Your task to perform on an android device: open app "Paramount+ | Peak Streaming" (install if not already installed), go to login, and select forgot password Image 0: 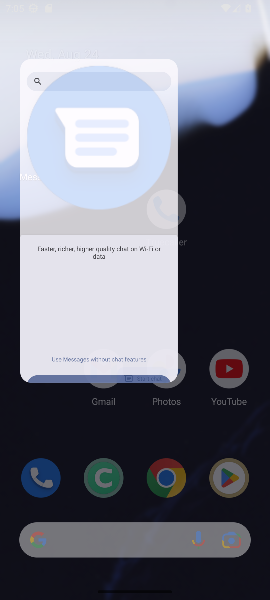
Step 0: press home button
Your task to perform on an android device: open app "Paramount+ | Peak Streaming" (install if not already installed), go to login, and select forgot password Image 1: 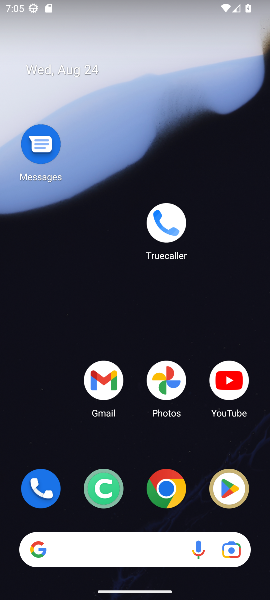
Step 1: click (238, 501)
Your task to perform on an android device: open app "Paramount+ | Peak Streaming" (install if not already installed), go to login, and select forgot password Image 2: 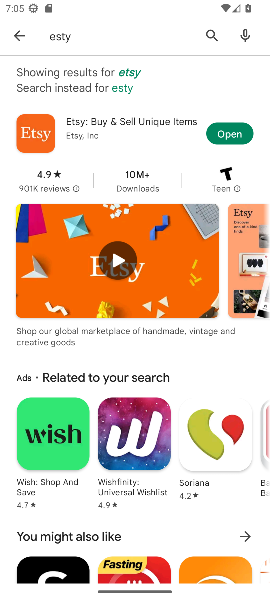
Step 2: click (188, 38)
Your task to perform on an android device: open app "Paramount+ | Peak Streaming" (install if not already installed), go to login, and select forgot password Image 3: 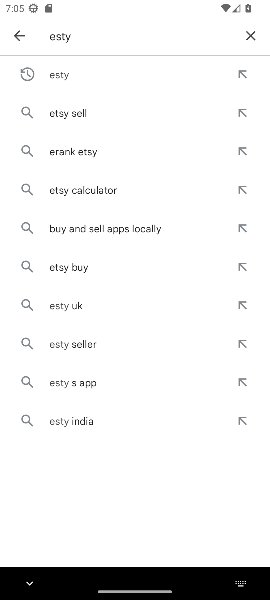
Step 3: click (248, 31)
Your task to perform on an android device: open app "Paramount+ | Peak Streaming" (install if not already installed), go to login, and select forgot password Image 4: 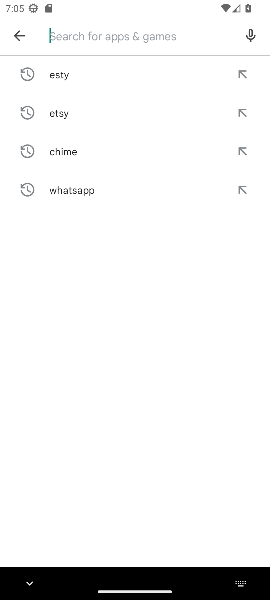
Step 4: type "paramount"
Your task to perform on an android device: open app "Paramount+ | Peak Streaming" (install if not already installed), go to login, and select forgot password Image 5: 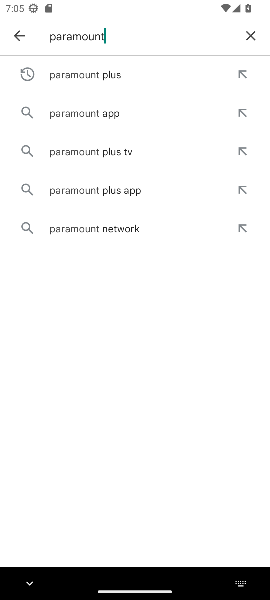
Step 5: click (73, 83)
Your task to perform on an android device: open app "Paramount+ | Peak Streaming" (install if not already installed), go to login, and select forgot password Image 6: 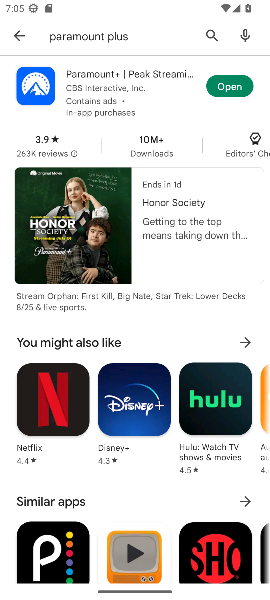
Step 6: click (222, 84)
Your task to perform on an android device: open app "Paramount+ | Peak Streaming" (install if not already installed), go to login, and select forgot password Image 7: 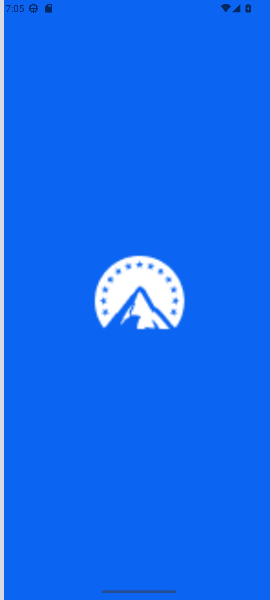
Step 7: task complete